Your task to perform on an android device: Open the web browser Image 0: 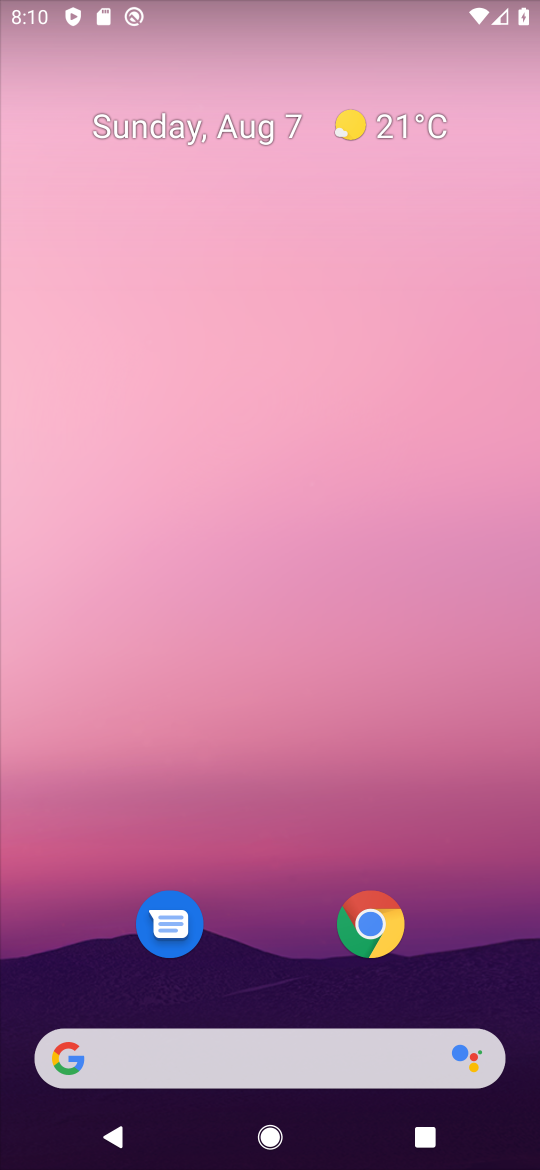
Step 0: click (204, 1064)
Your task to perform on an android device: Open the web browser Image 1: 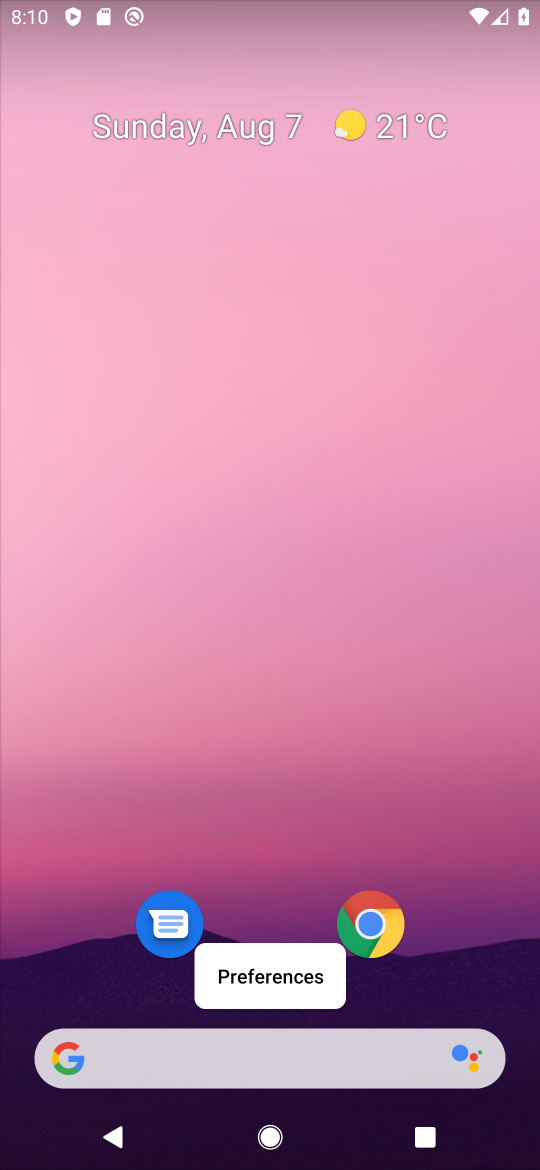
Step 1: click (207, 1049)
Your task to perform on an android device: Open the web browser Image 2: 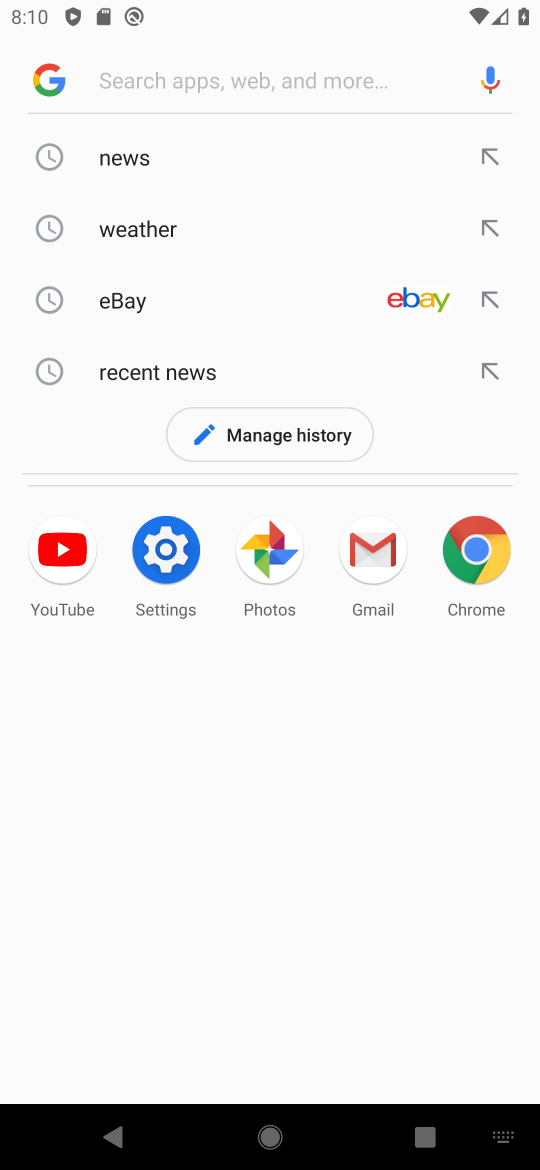
Step 2: task complete